Your task to perform on an android device: Empty the shopping cart on walmart. Add "logitech g pro" to the cart on walmart, then select checkout. Image 0: 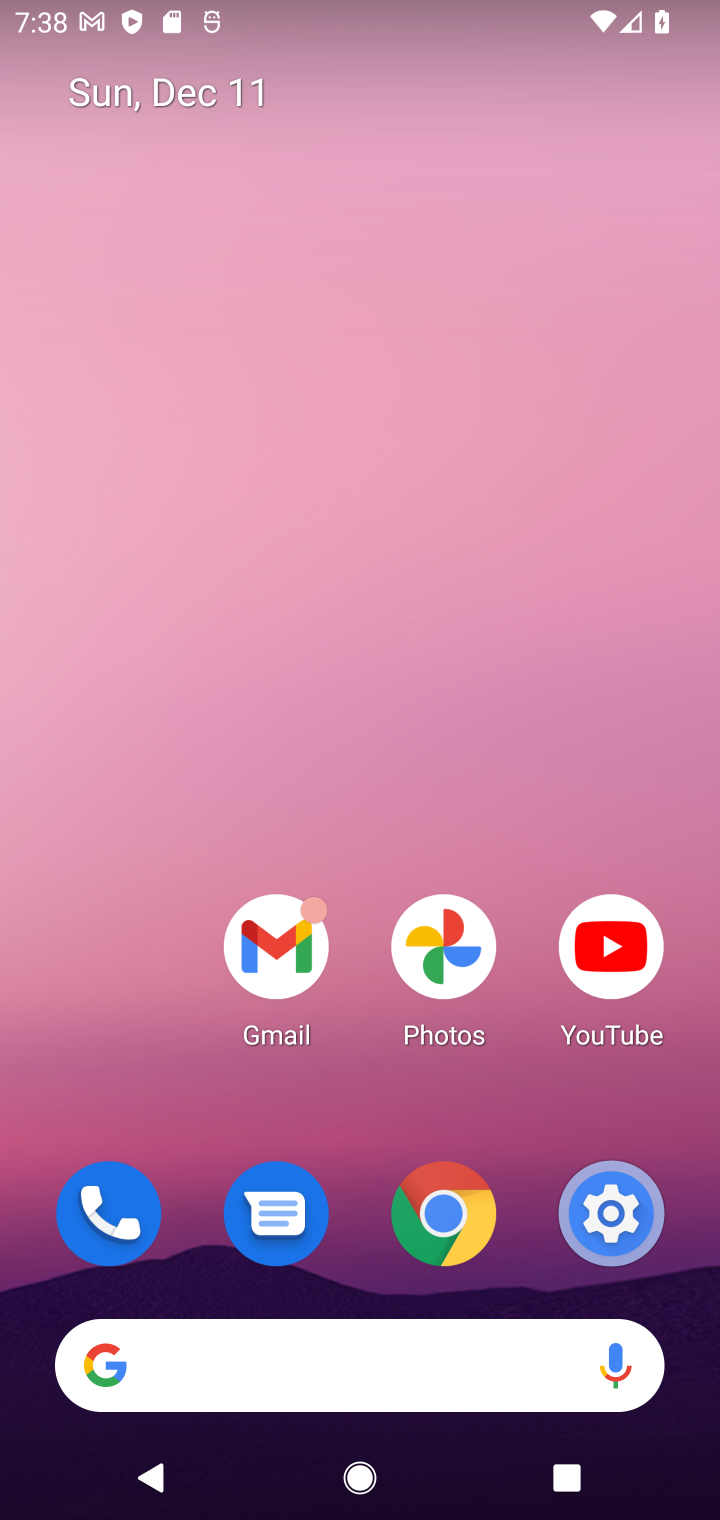
Step 0: click (340, 1337)
Your task to perform on an android device: Empty the shopping cart on walmart. Add "logitech g pro" to the cart on walmart, then select checkout. Image 1: 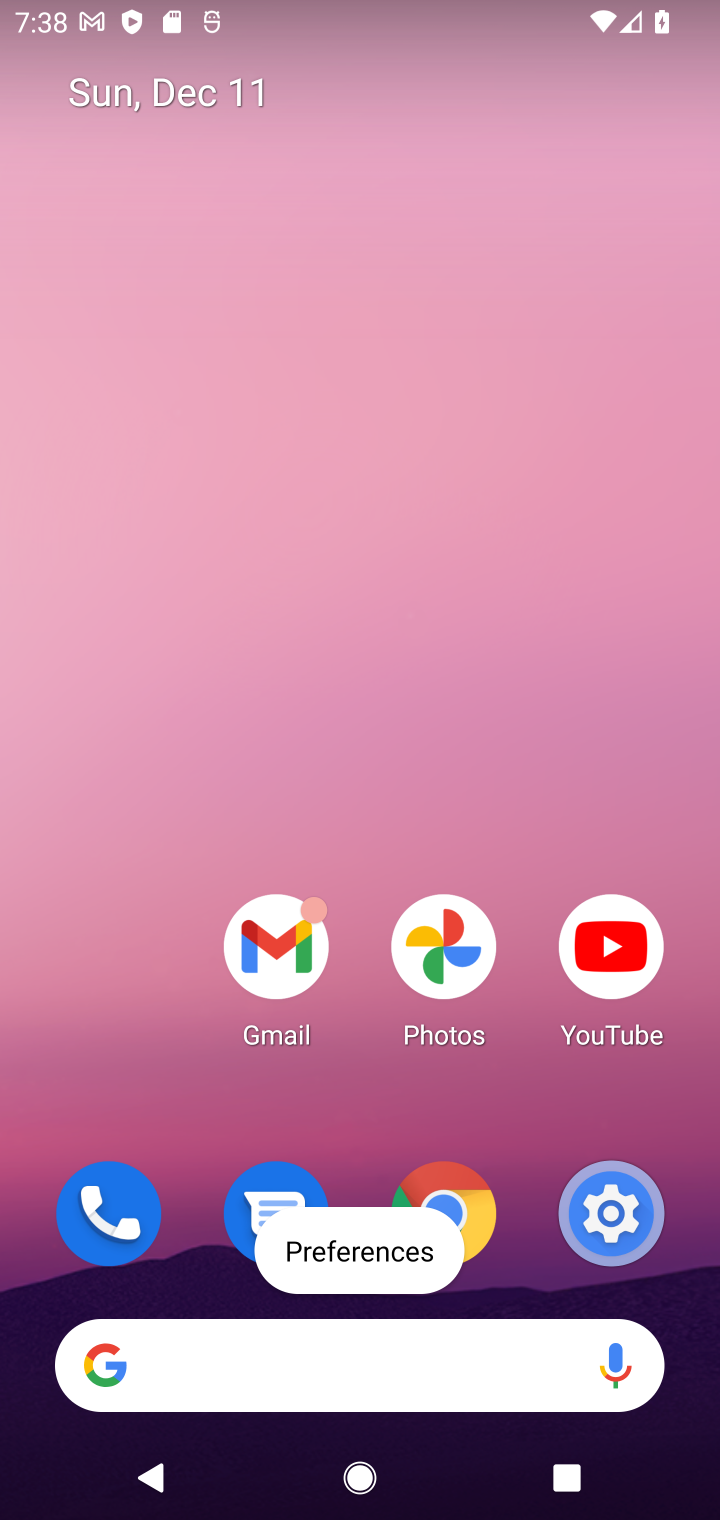
Step 1: type "walmart"
Your task to perform on an android device: Empty the shopping cart on walmart. Add "logitech g pro" to the cart on walmart, then select checkout. Image 2: 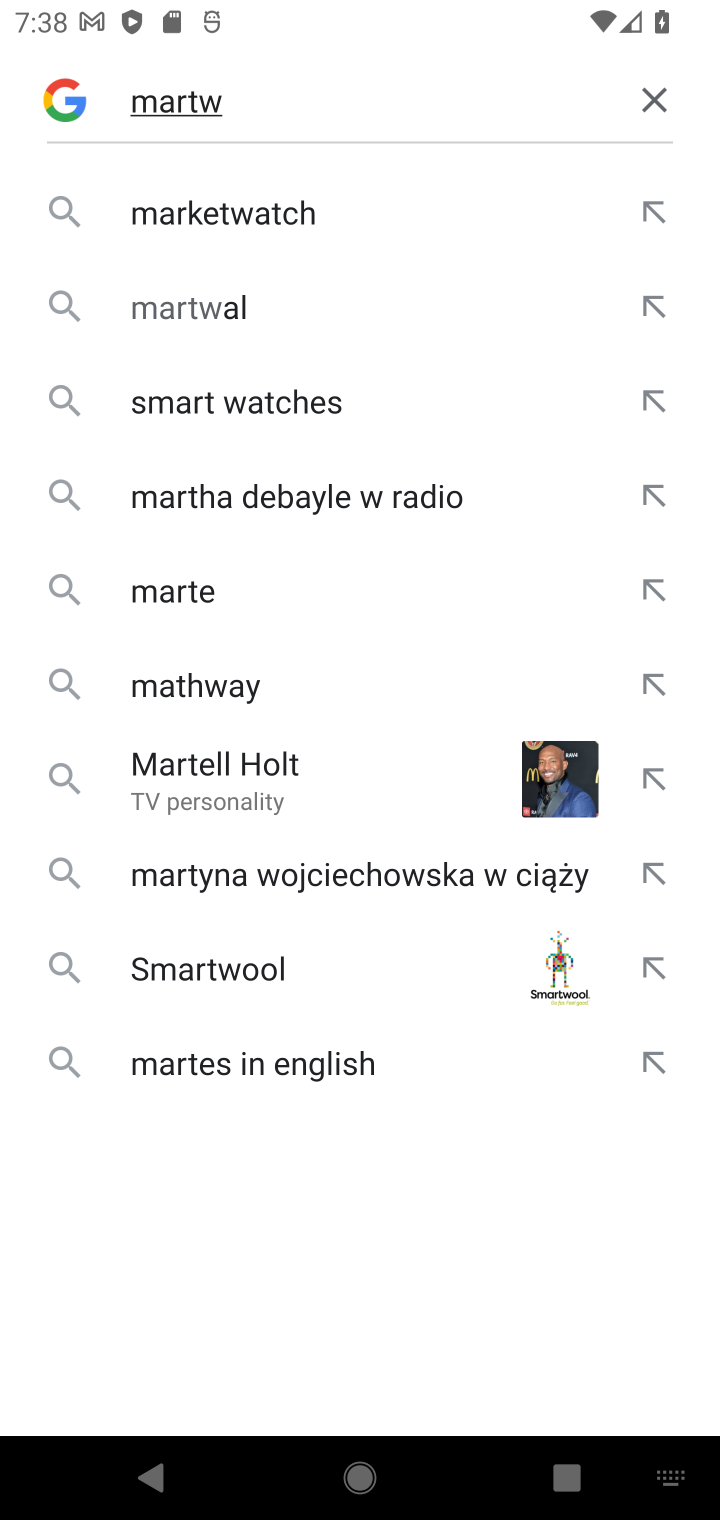
Step 2: click (648, 84)
Your task to perform on an android device: Empty the shopping cart on walmart. Add "logitech g pro" to the cart on walmart, then select checkout. Image 3: 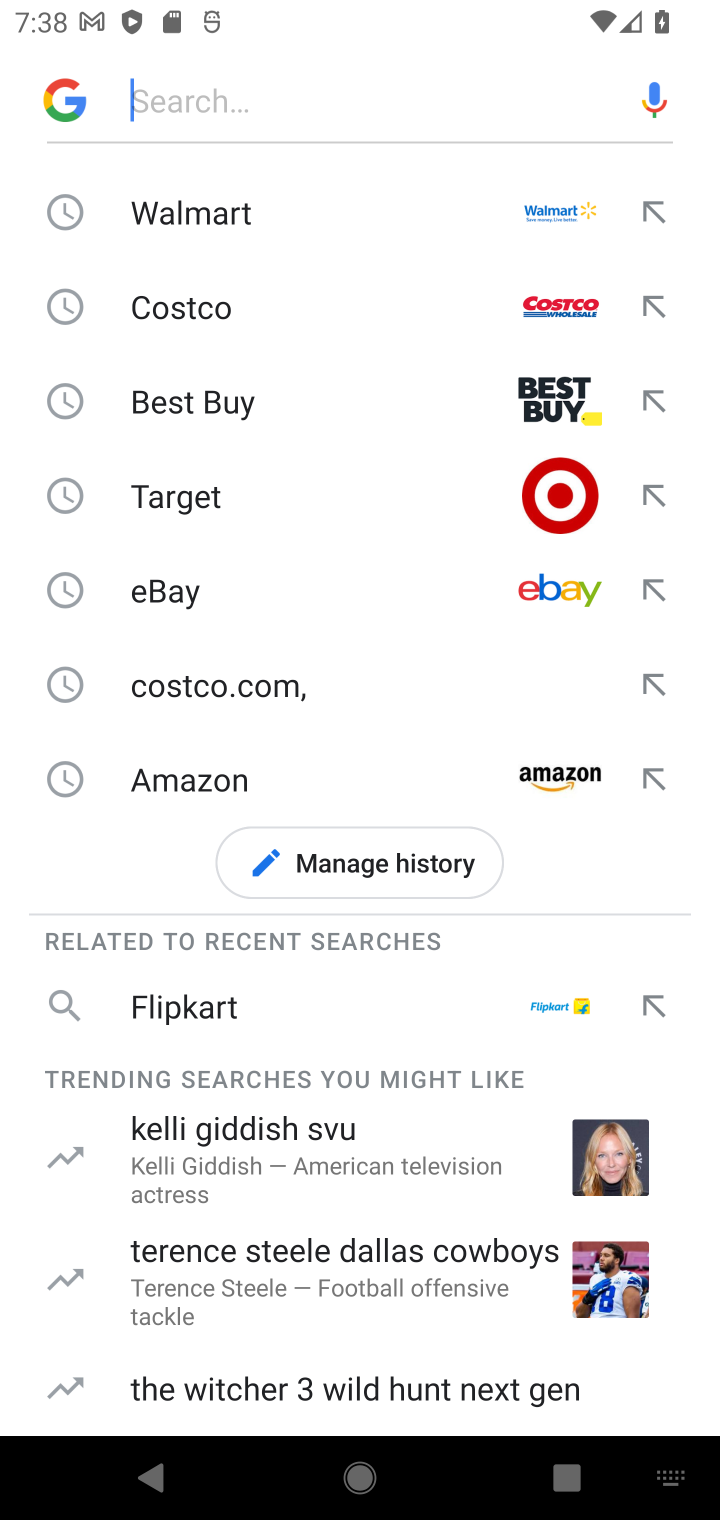
Step 3: click (339, 206)
Your task to perform on an android device: Empty the shopping cart on walmart. Add "logitech g pro" to the cart on walmart, then select checkout. Image 4: 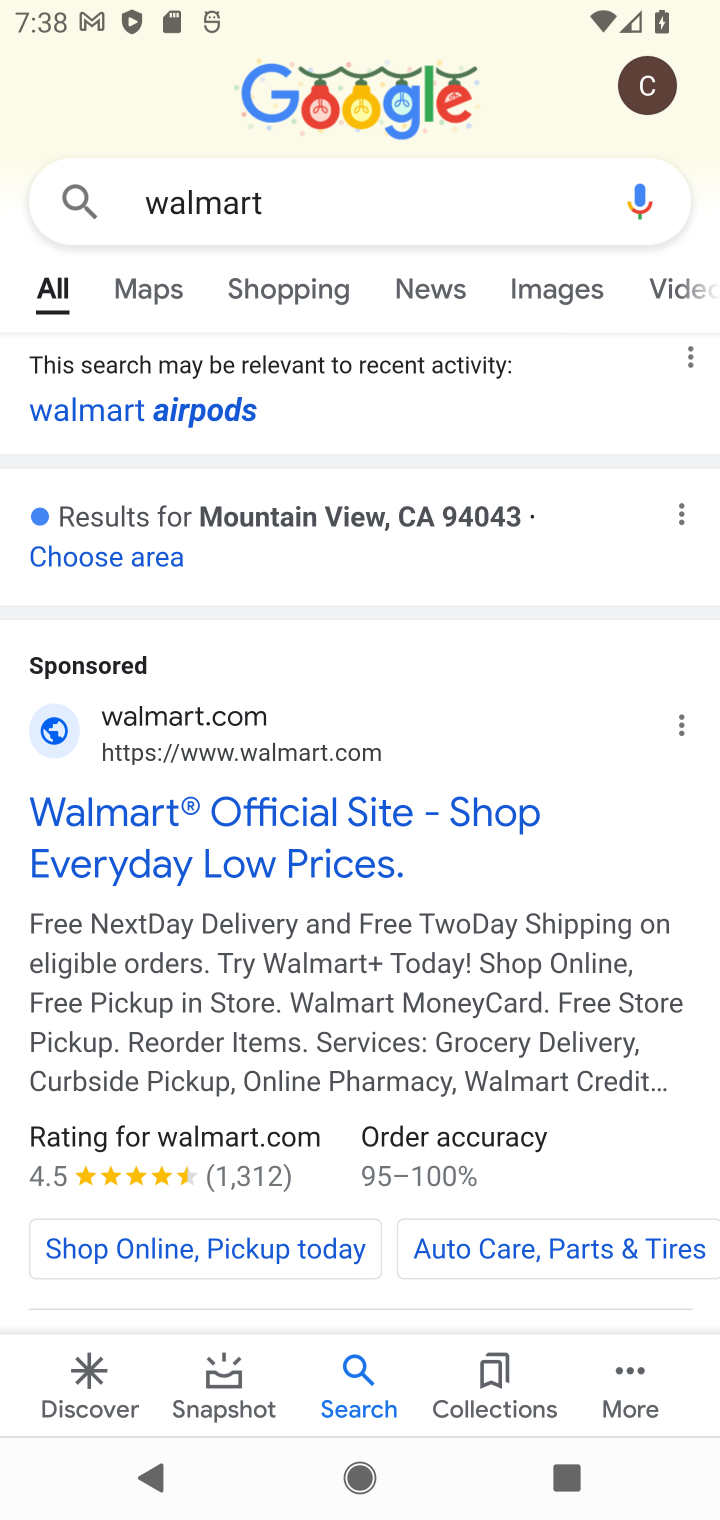
Step 4: click (120, 830)
Your task to perform on an android device: Empty the shopping cart on walmart. Add "logitech g pro" to the cart on walmart, then select checkout. Image 5: 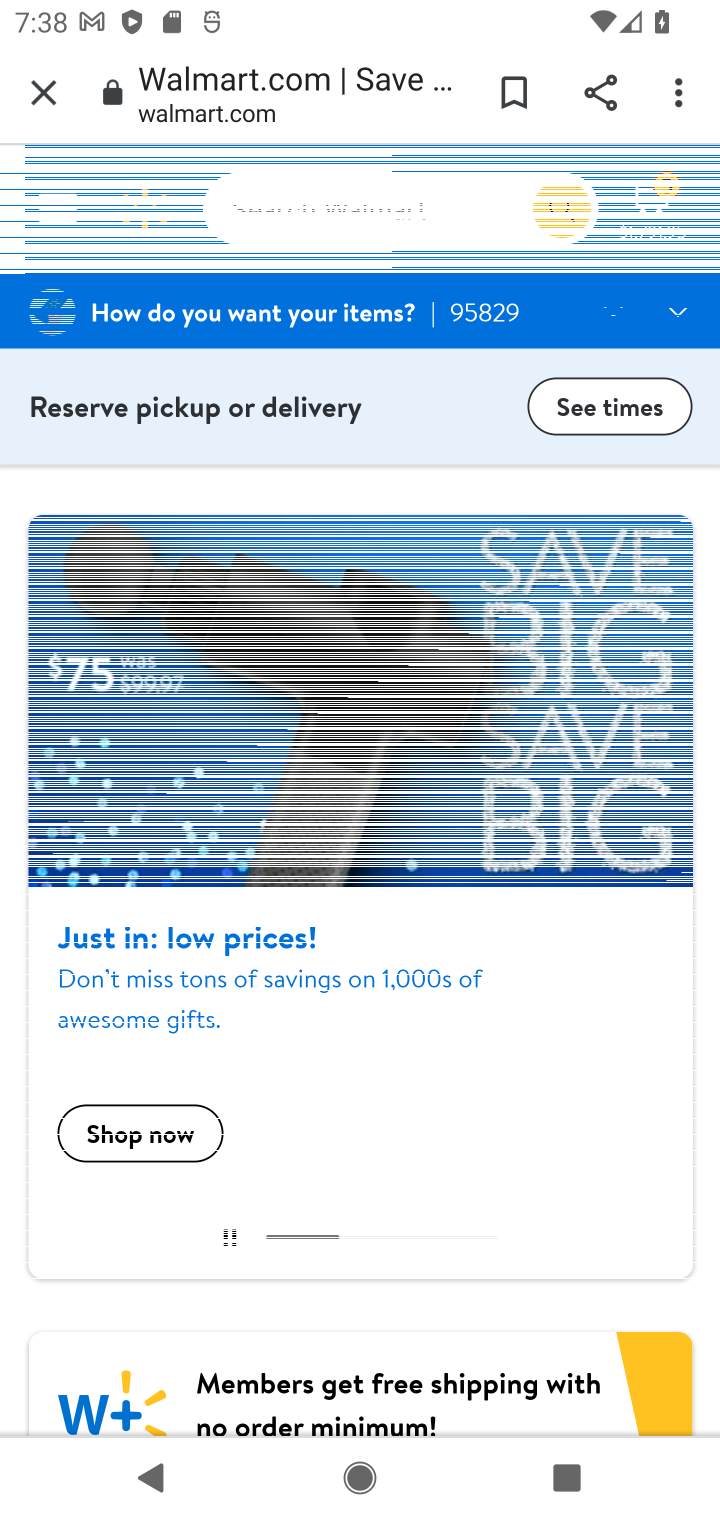
Step 5: click (368, 229)
Your task to perform on an android device: Empty the shopping cart on walmart. Add "logitech g pro" to the cart on walmart, then select checkout. Image 6: 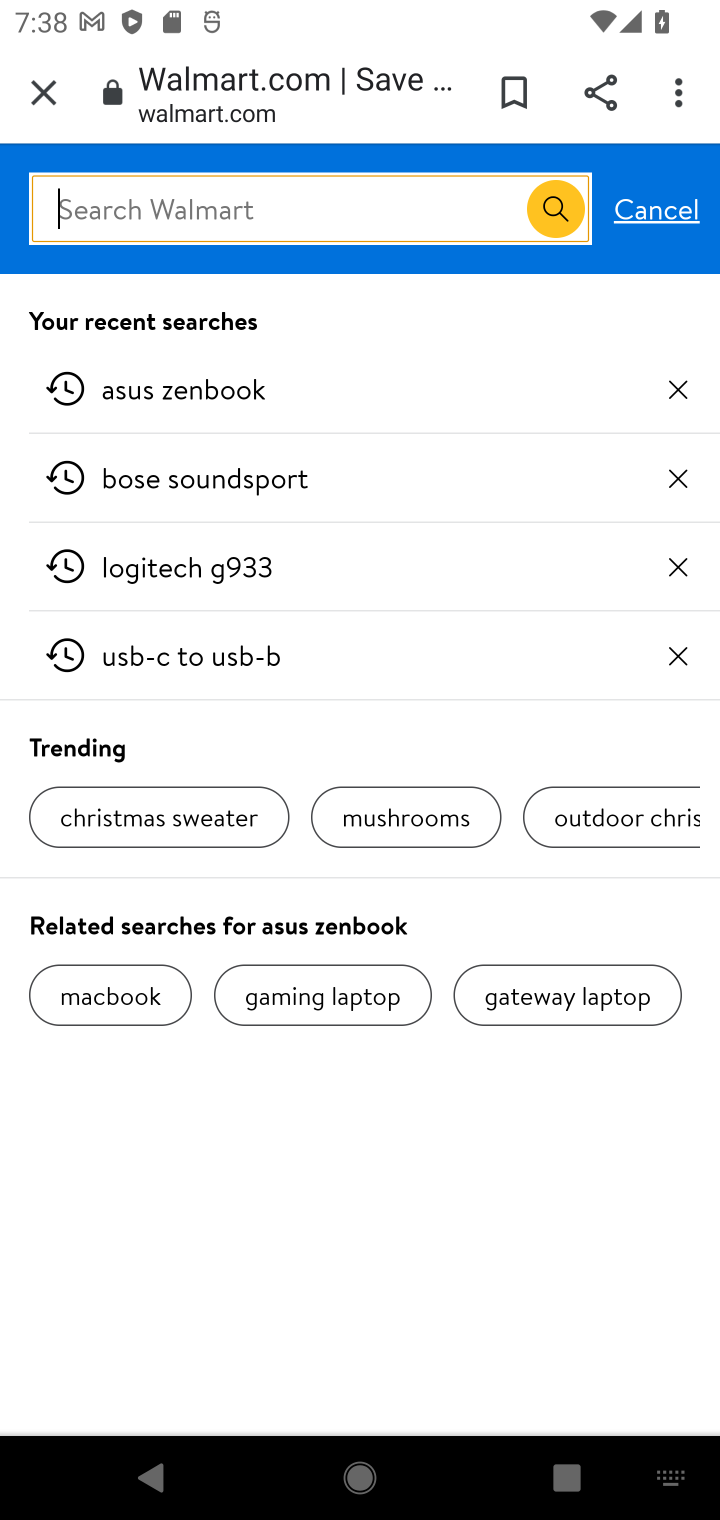
Step 6: type "logitech g pro"
Your task to perform on an android device: Empty the shopping cart on walmart. Add "logitech g pro" to the cart on walmart, then select checkout. Image 7: 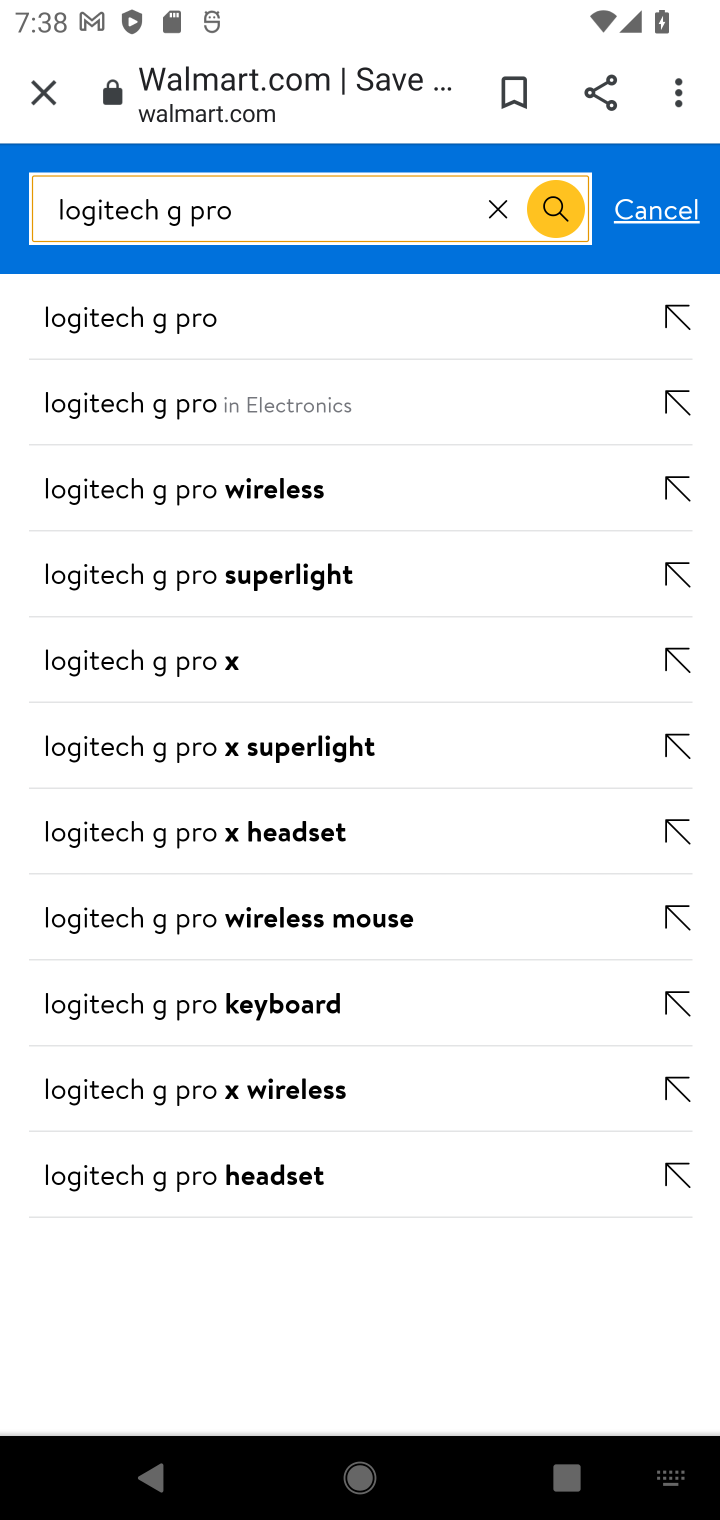
Step 7: click (87, 310)
Your task to perform on an android device: Empty the shopping cart on walmart. Add "logitech g pro" to the cart on walmart, then select checkout. Image 8: 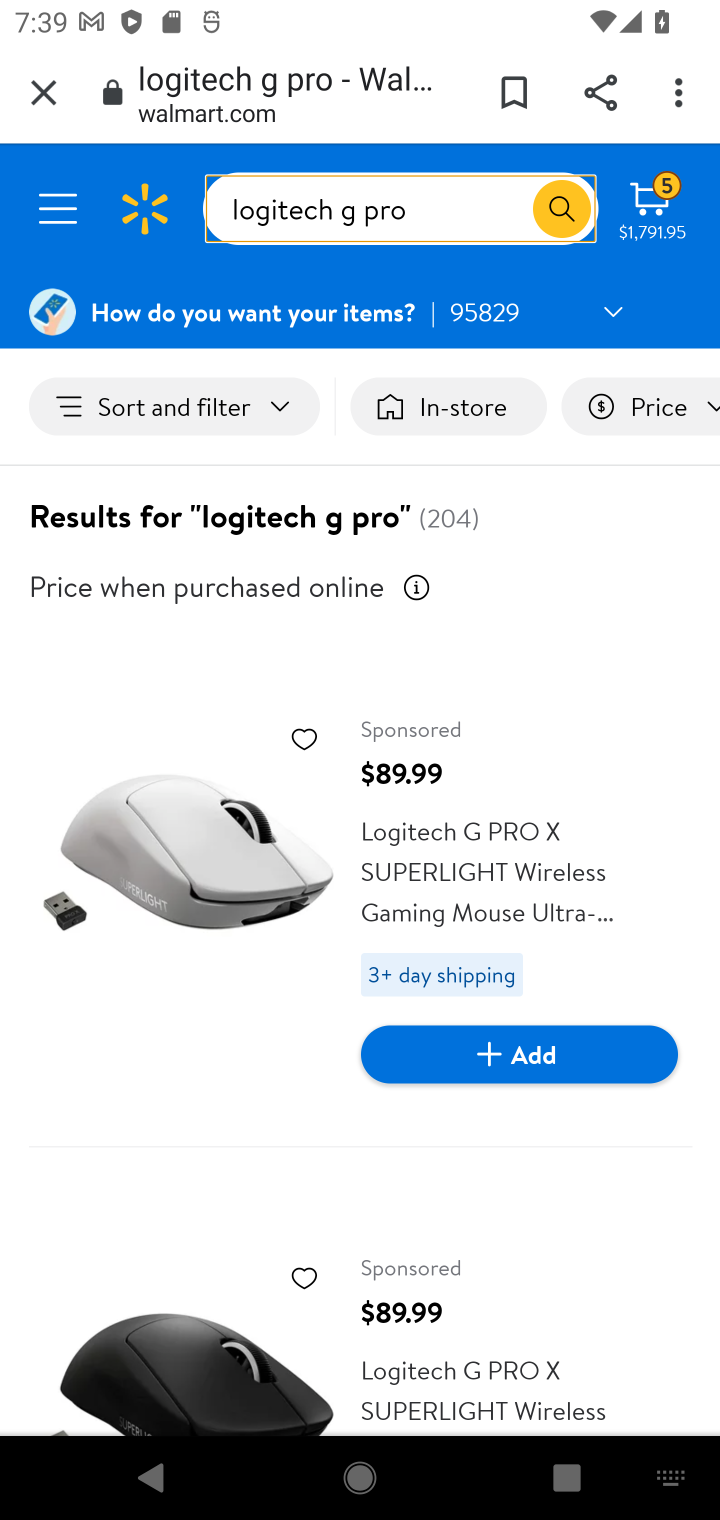
Step 8: click (514, 1064)
Your task to perform on an android device: Empty the shopping cart on walmart. Add "logitech g pro" to the cart on walmart, then select checkout. Image 9: 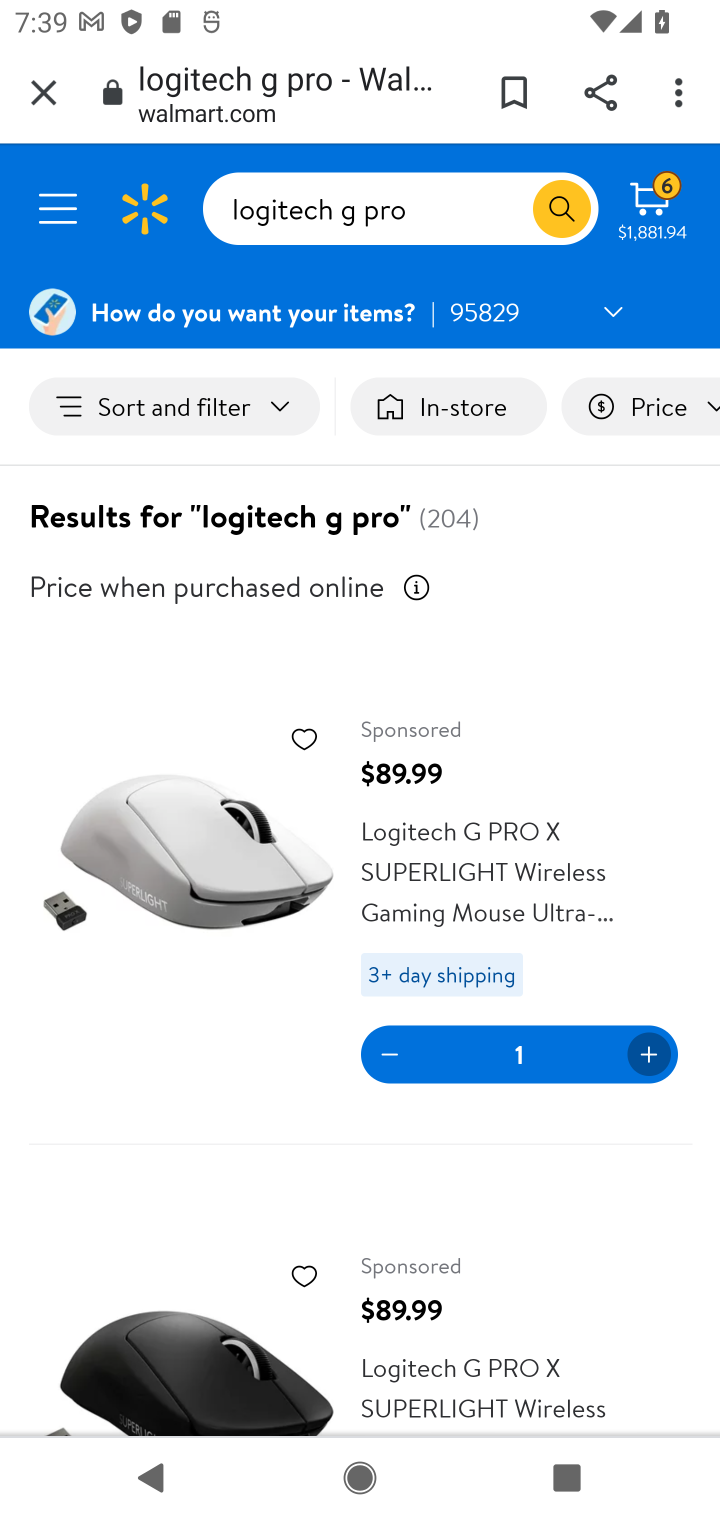
Step 9: task complete